Your task to perform on an android device: turn on wifi Image 0: 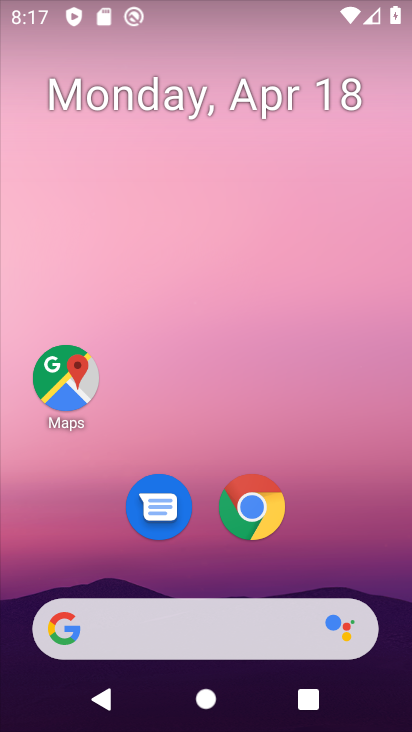
Step 0: drag from (302, 545) to (301, 74)
Your task to perform on an android device: turn on wifi Image 1: 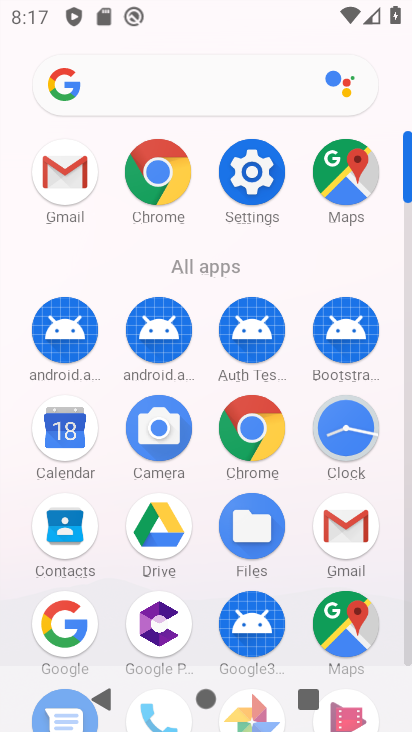
Step 1: click (252, 181)
Your task to perform on an android device: turn on wifi Image 2: 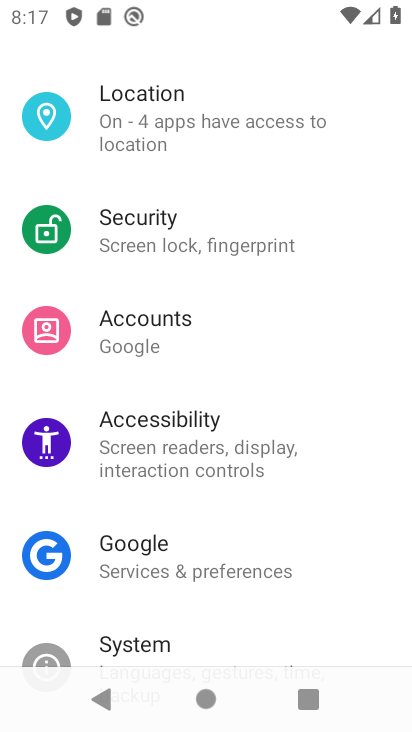
Step 2: drag from (298, 156) to (271, 620)
Your task to perform on an android device: turn on wifi Image 3: 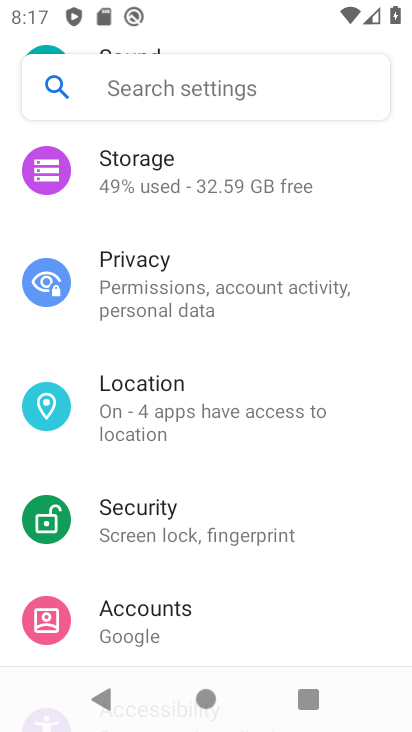
Step 3: drag from (277, 202) to (280, 575)
Your task to perform on an android device: turn on wifi Image 4: 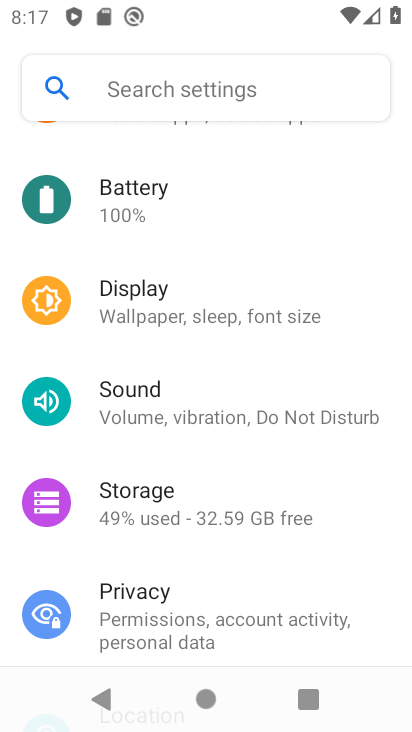
Step 4: drag from (288, 205) to (320, 587)
Your task to perform on an android device: turn on wifi Image 5: 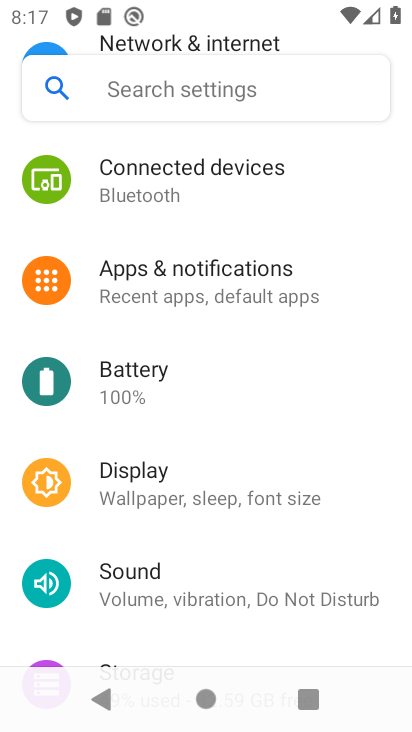
Step 5: drag from (288, 203) to (272, 557)
Your task to perform on an android device: turn on wifi Image 6: 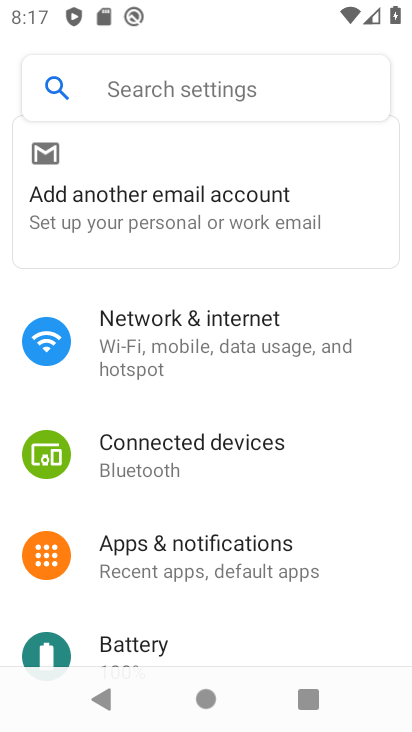
Step 6: click (262, 348)
Your task to perform on an android device: turn on wifi Image 7: 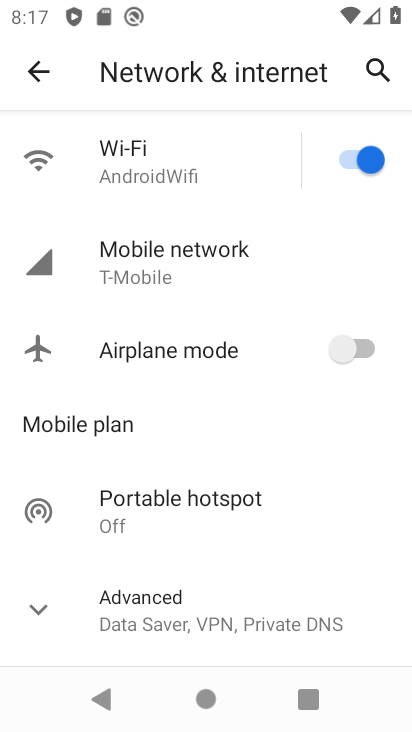
Step 7: task complete